Your task to perform on an android device: turn on showing notifications on the lock screen Image 0: 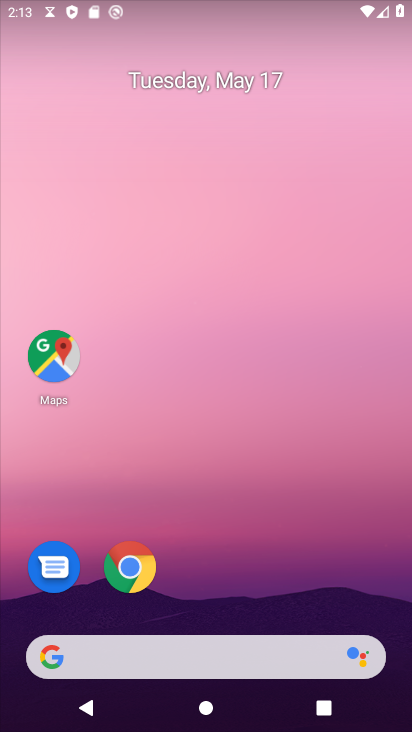
Step 0: drag from (196, 651) to (203, 275)
Your task to perform on an android device: turn on showing notifications on the lock screen Image 1: 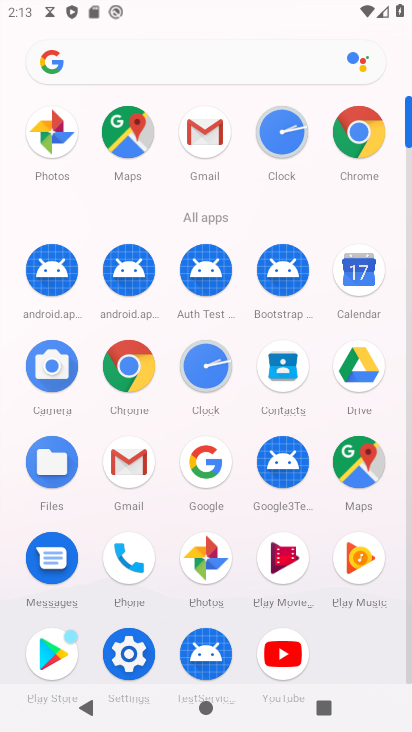
Step 1: click (131, 665)
Your task to perform on an android device: turn on showing notifications on the lock screen Image 2: 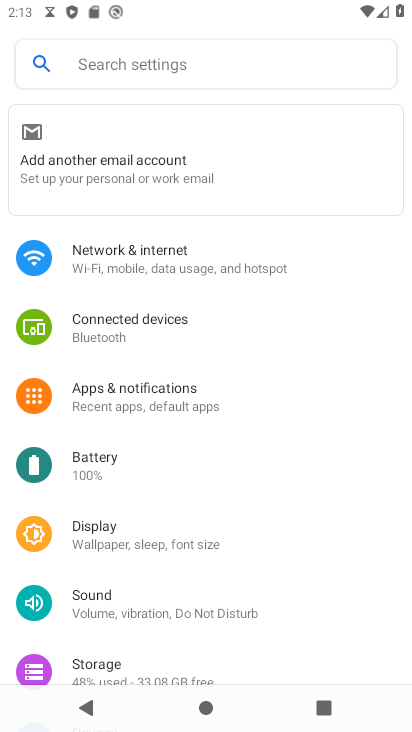
Step 2: click (105, 397)
Your task to perform on an android device: turn on showing notifications on the lock screen Image 3: 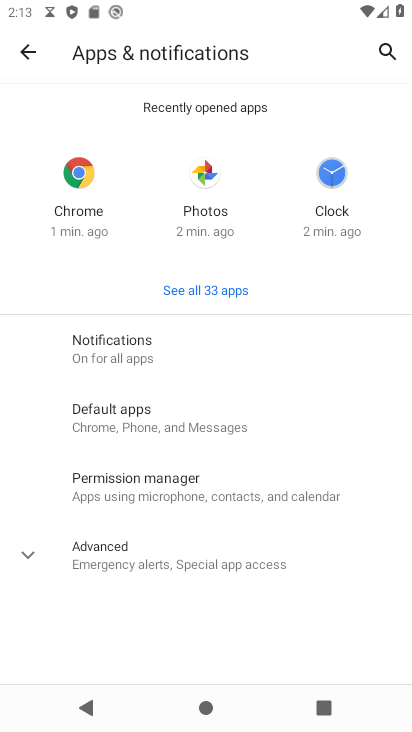
Step 3: click (79, 358)
Your task to perform on an android device: turn on showing notifications on the lock screen Image 4: 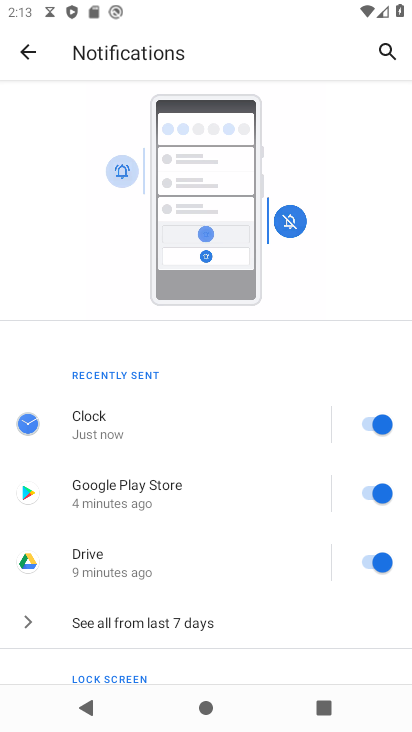
Step 4: drag from (171, 576) to (141, 267)
Your task to perform on an android device: turn on showing notifications on the lock screen Image 5: 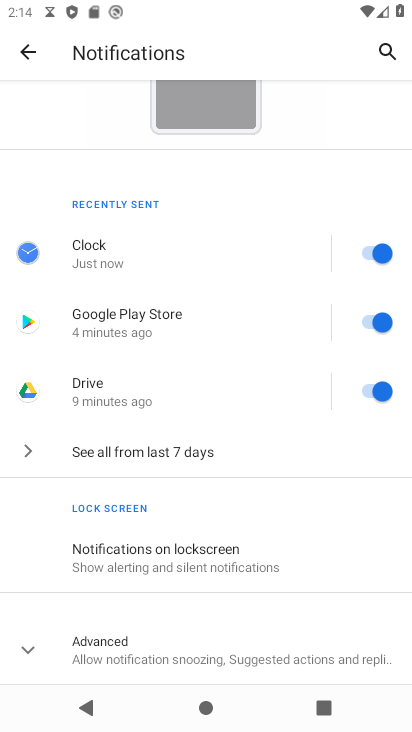
Step 5: click (119, 554)
Your task to perform on an android device: turn on showing notifications on the lock screen Image 6: 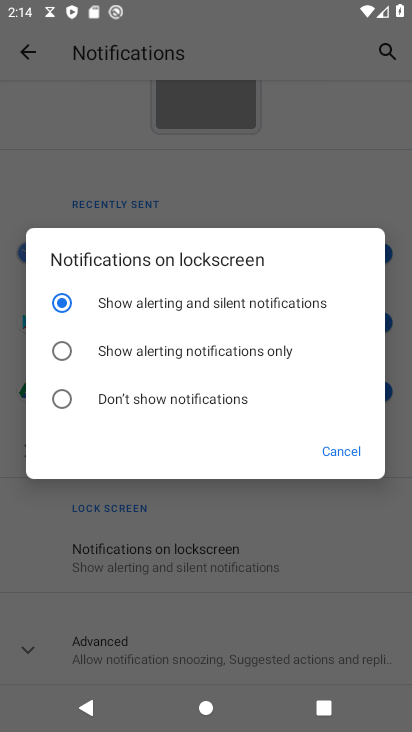
Step 6: click (112, 305)
Your task to perform on an android device: turn on showing notifications on the lock screen Image 7: 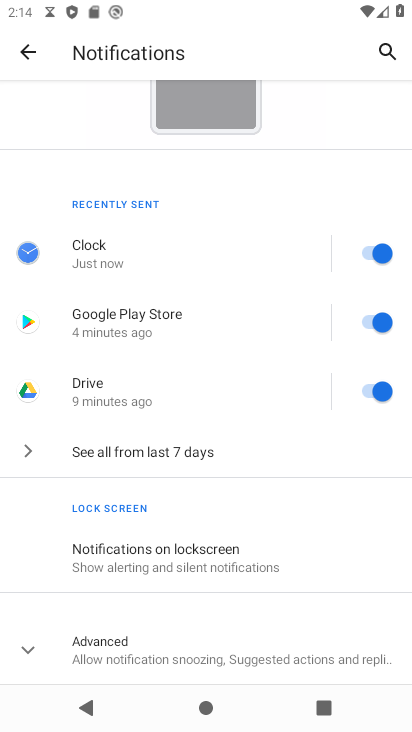
Step 7: task complete